Your task to perform on an android device: remove spam from my inbox in the gmail app Image 0: 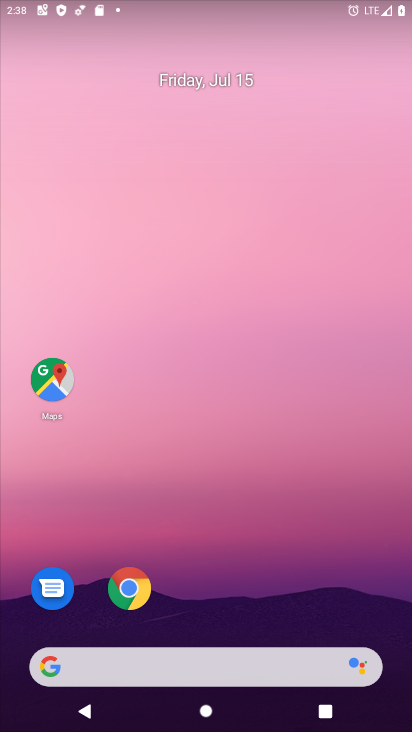
Step 0: drag from (236, 470) to (261, 231)
Your task to perform on an android device: remove spam from my inbox in the gmail app Image 1: 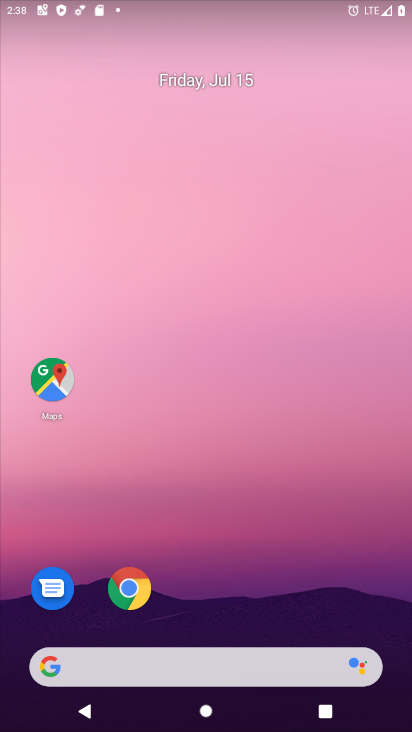
Step 1: drag from (226, 679) to (245, 93)
Your task to perform on an android device: remove spam from my inbox in the gmail app Image 2: 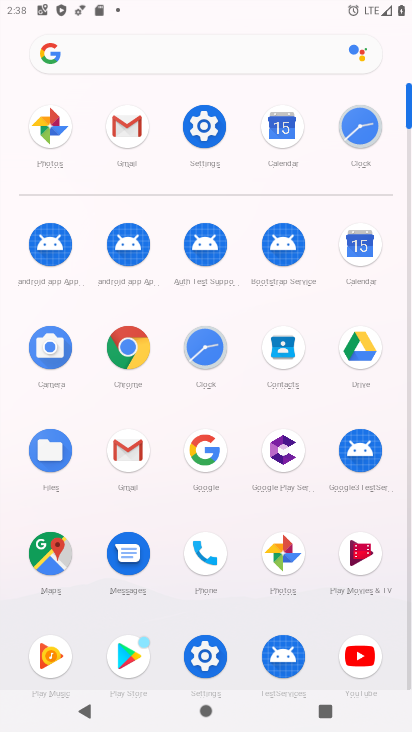
Step 2: click (128, 447)
Your task to perform on an android device: remove spam from my inbox in the gmail app Image 3: 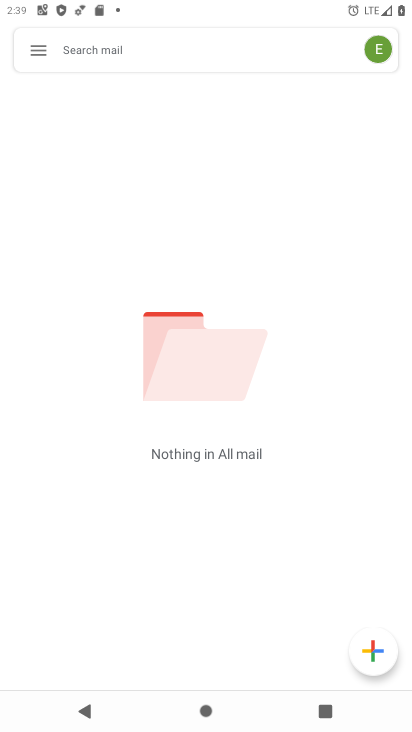
Step 3: click (37, 53)
Your task to perform on an android device: remove spam from my inbox in the gmail app Image 4: 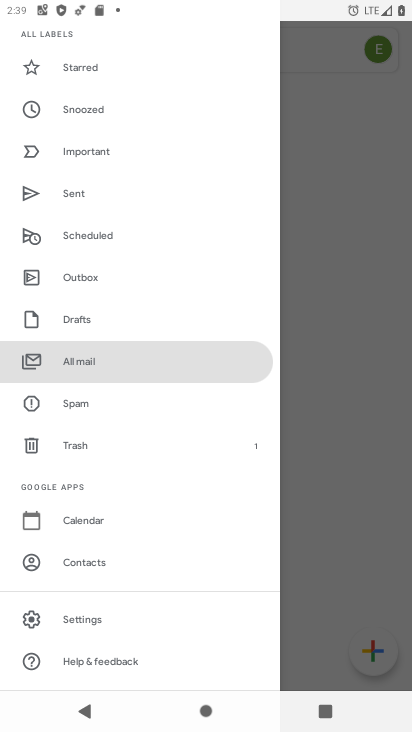
Step 4: click (81, 403)
Your task to perform on an android device: remove spam from my inbox in the gmail app Image 5: 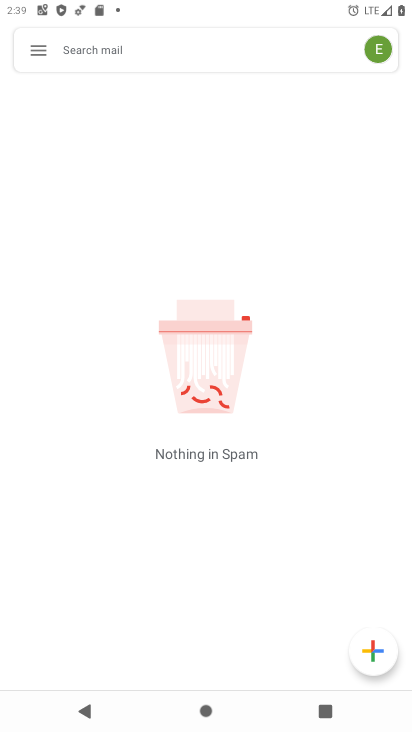
Step 5: task complete